Your task to perform on an android device: snooze an email in the gmail app Image 0: 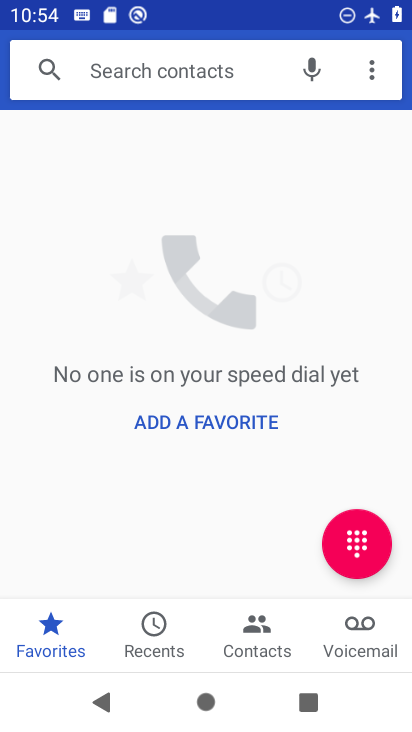
Step 0: press home button
Your task to perform on an android device: snooze an email in the gmail app Image 1: 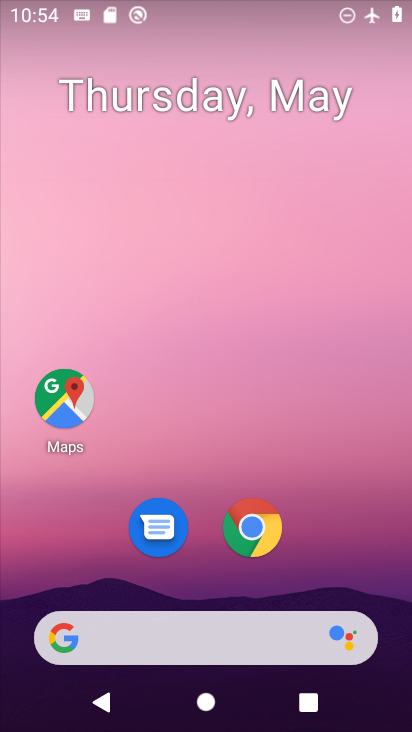
Step 1: drag from (375, 448) to (324, 119)
Your task to perform on an android device: snooze an email in the gmail app Image 2: 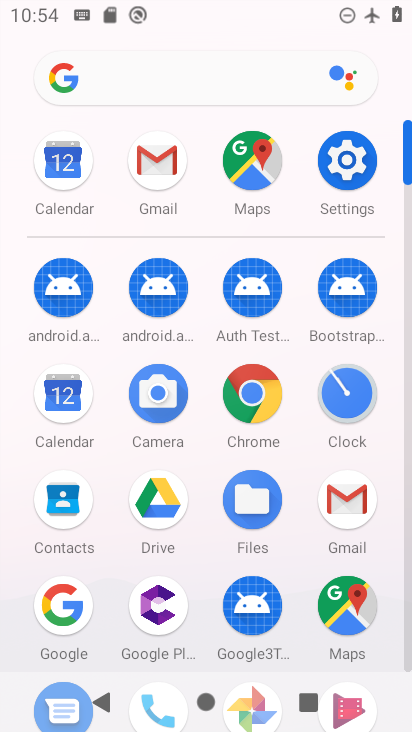
Step 2: click (348, 501)
Your task to perform on an android device: snooze an email in the gmail app Image 3: 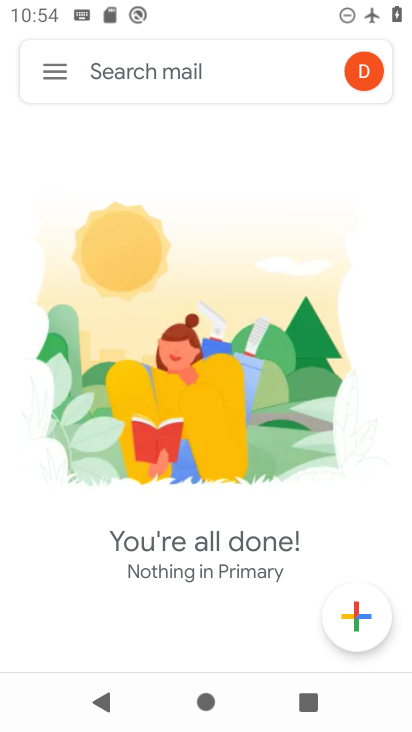
Step 3: click (56, 70)
Your task to perform on an android device: snooze an email in the gmail app Image 4: 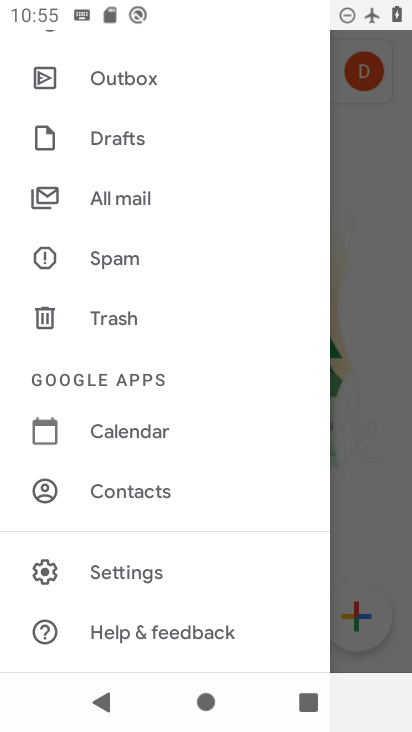
Step 4: click (138, 195)
Your task to perform on an android device: snooze an email in the gmail app Image 5: 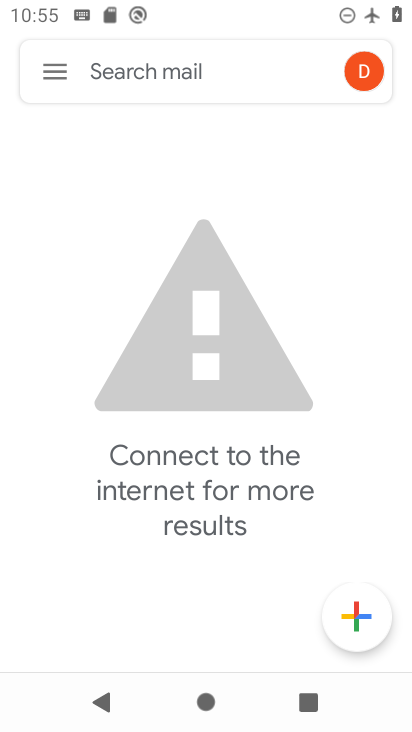
Step 5: task complete